Your task to perform on an android device: Open Youtube and go to "Your channel" Image 0: 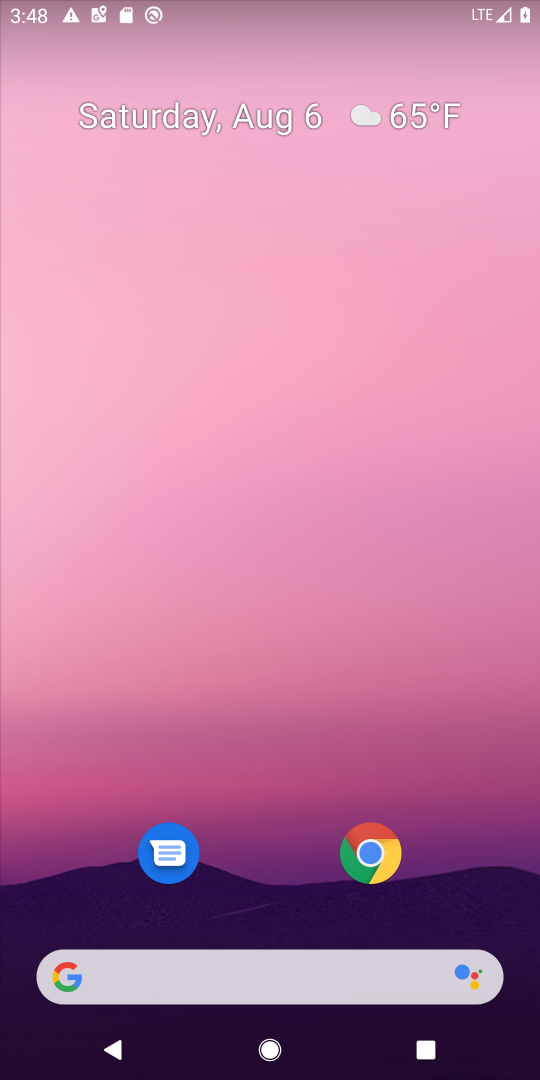
Step 0: drag from (288, 918) to (349, 100)
Your task to perform on an android device: Open Youtube and go to "Your channel" Image 1: 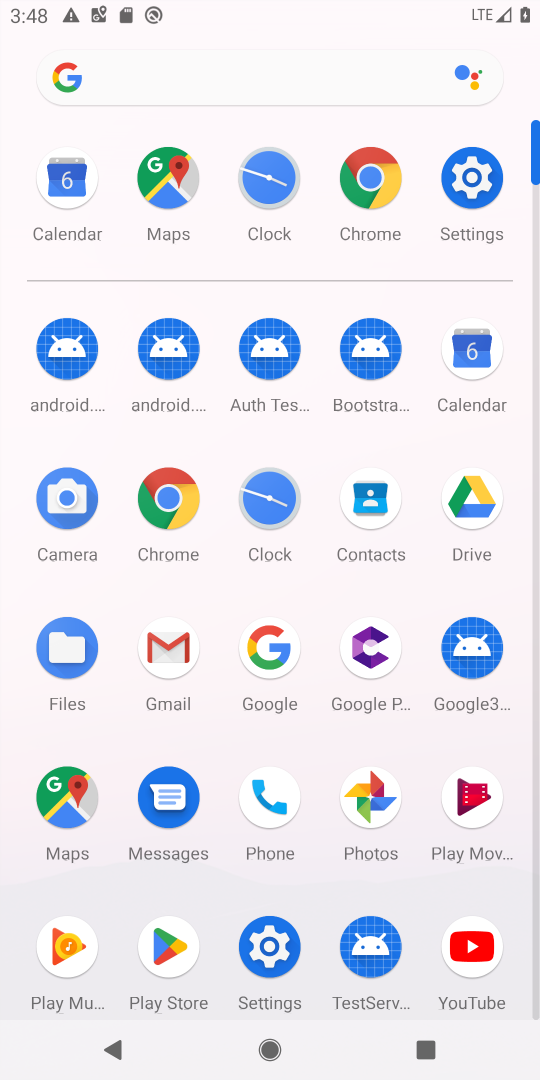
Step 1: click (478, 947)
Your task to perform on an android device: Open Youtube and go to "Your channel" Image 2: 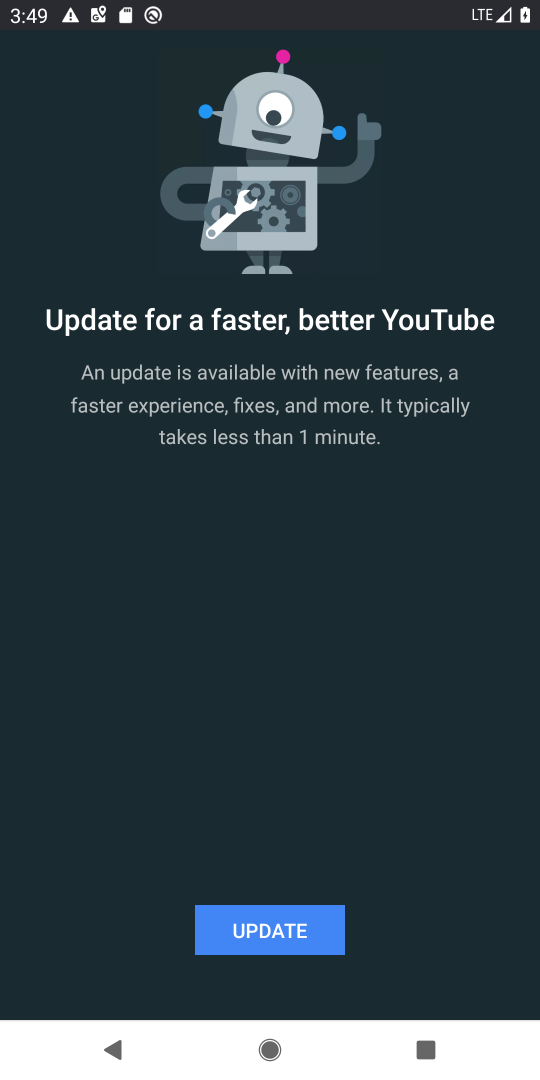
Step 2: click (290, 927)
Your task to perform on an android device: Open Youtube and go to "Your channel" Image 3: 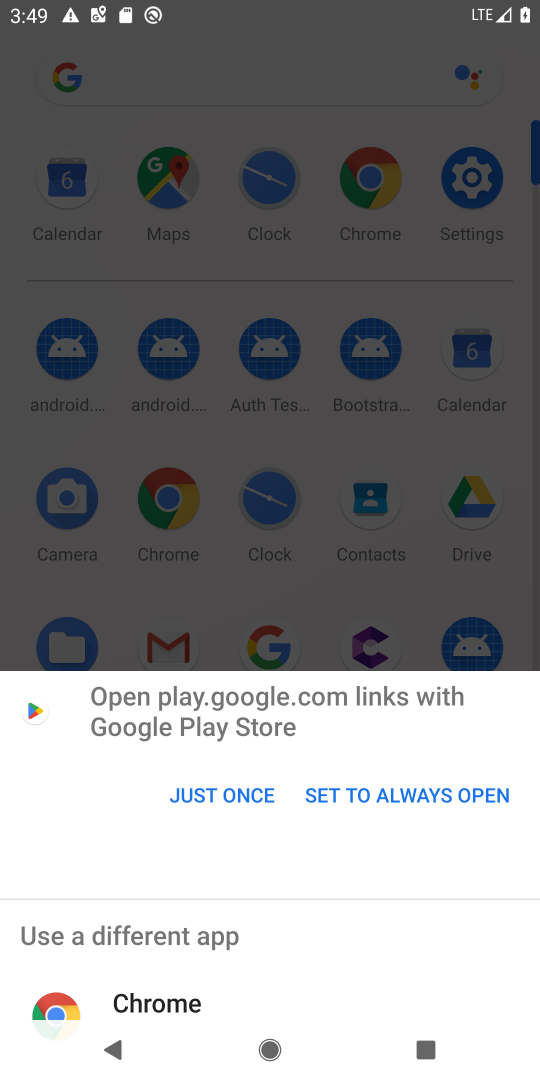
Step 3: click (233, 810)
Your task to perform on an android device: Open Youtube and go to "Your channel" Image 4: 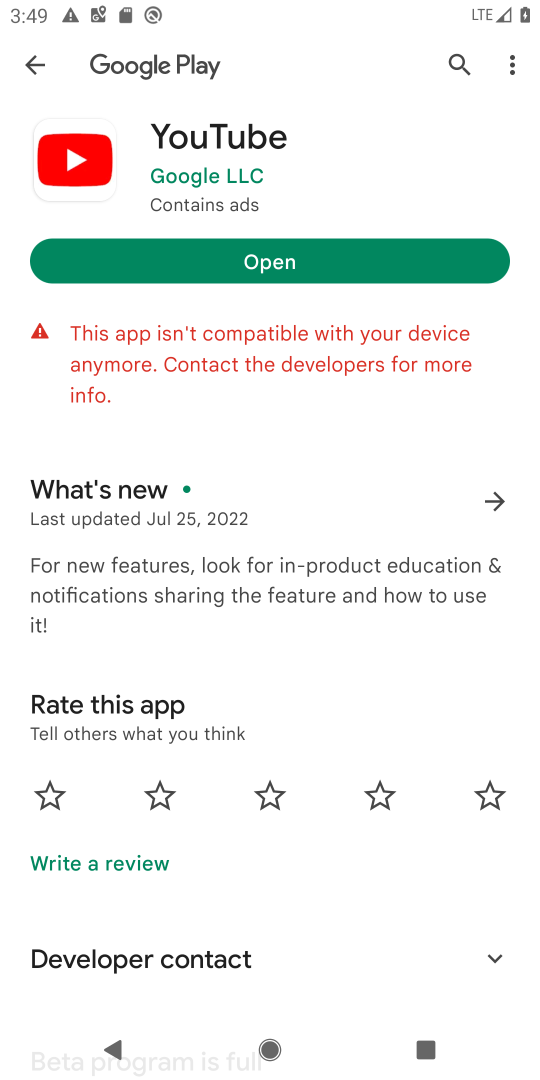
Step 4: click (264, 259)
Your task to perform on an android device: Open Youtube and go to "Your channel" Image 5: 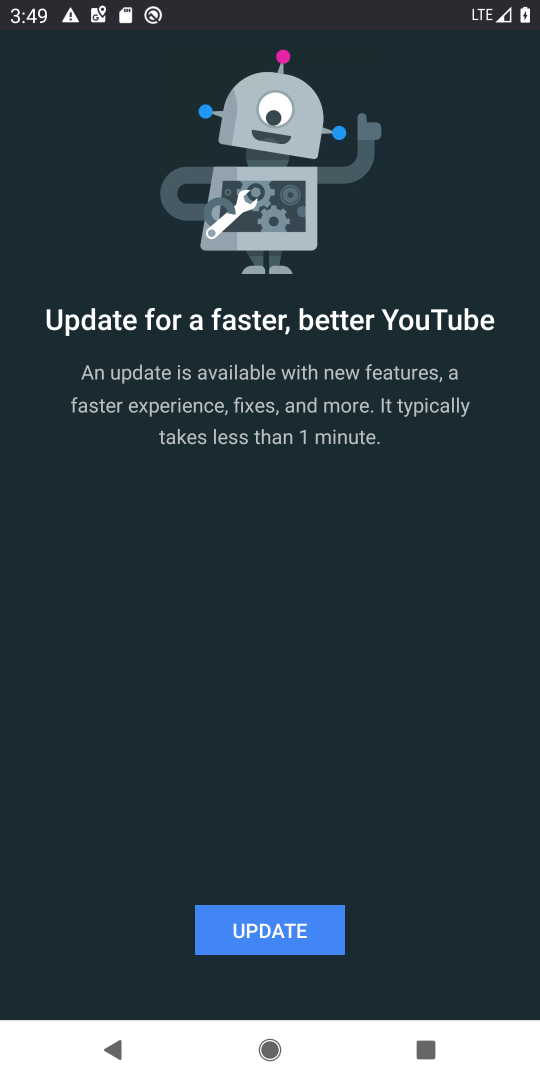
Step 5: task complete